Your task to perform on an android device: change your default location settings in chrome Image 0: 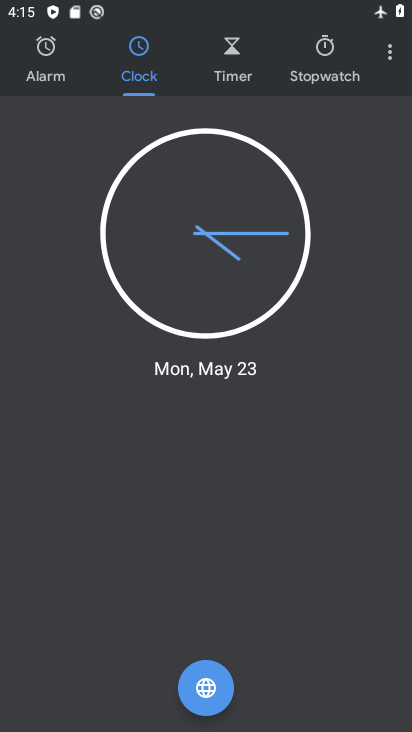
Step 0: press home button
Your task to perform on an android device: change your default location settings in chrome Image 1: 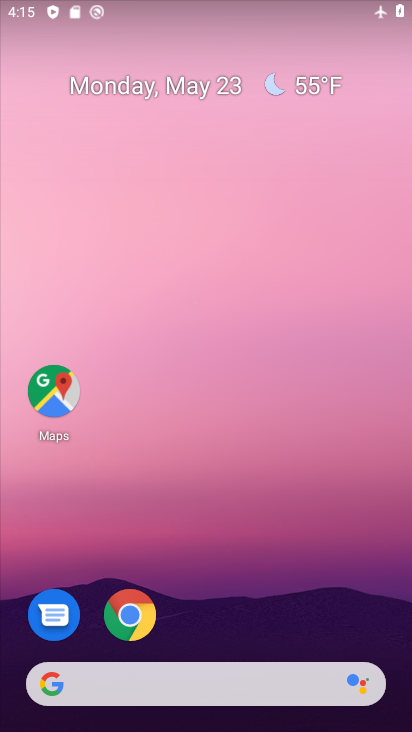
Step 1: drag from (334, 605) to (334, 139)
Your task to perform on an android device: change your default location settings in chrome Image 2: 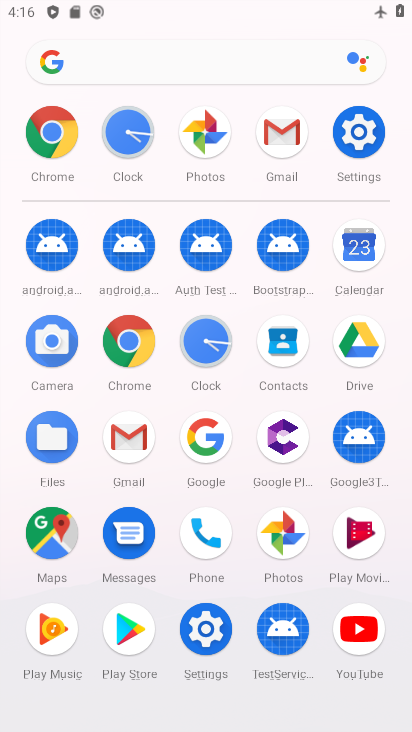
Step 2: click (133, 371)
Your task to perform on an android device: change your default location settings in chrome Image 3: 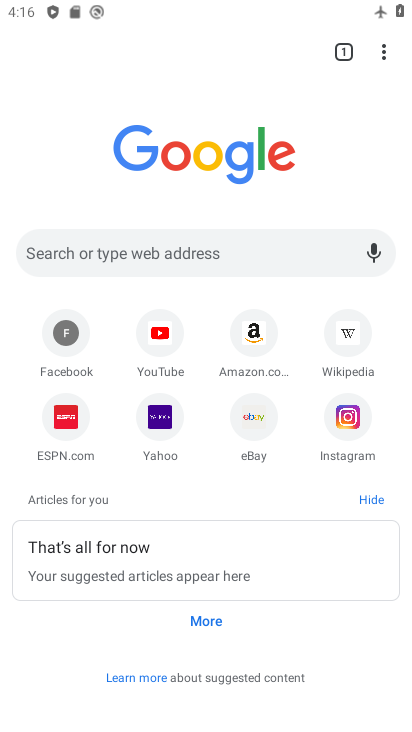
Step 3: click (385, 56)
Your task to perform on an android device: change your default location settings in chrome Image 4: 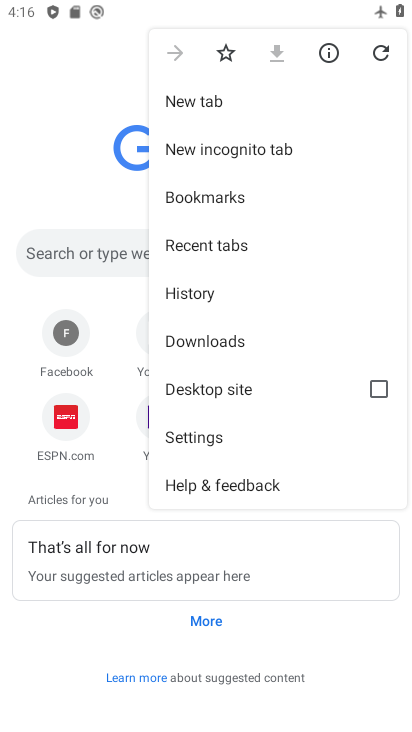
Step 4: click (183, 447)
Your task to perform on an android device: change your default location settings in chrome Image 5: 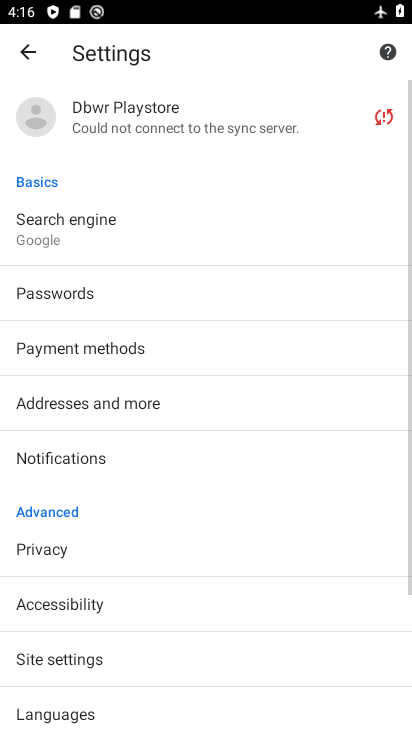
Step 5: drag from (257, 556) to (276, 470)
Your task to perform on an android device: change your default location settings in chrome Image 6: 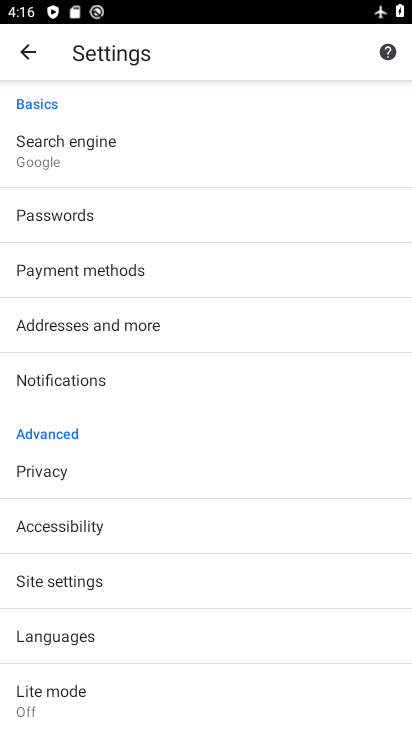
Step 6: drag from (277, 592) to (286, 507)
Your task to perform on an android device: change your default location settings in chrome Image 7: 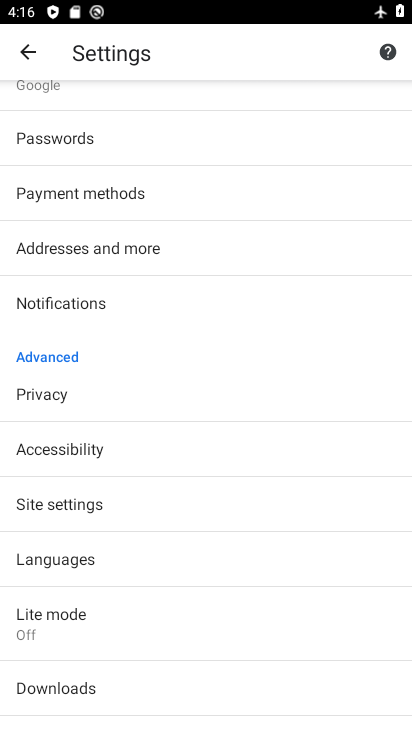
Step 7: drag from (281, 620) to (285, 528)
Your task to perform on an android device: change your default location settings in chrome Image 8: 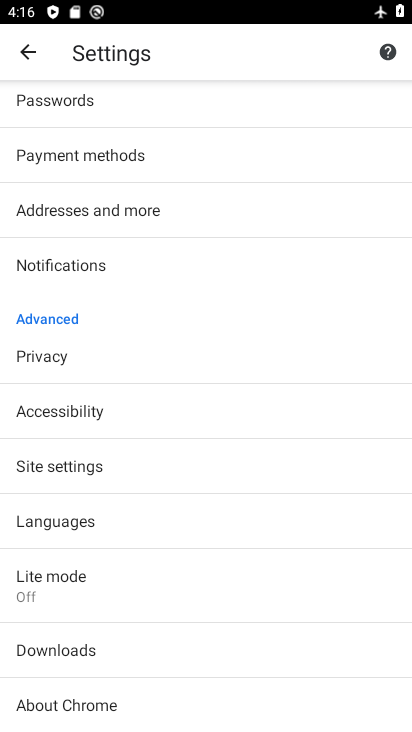
Step 8: drag from (264, 633) to (260, 493)
Your task to perform on an android device: change your default location settings in chrome Image 9: 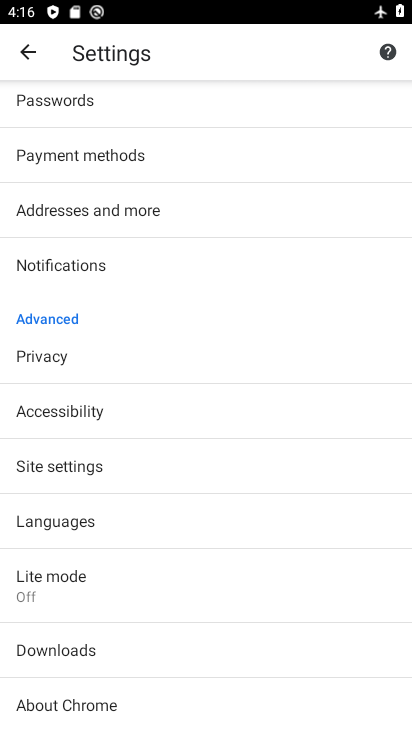
Step 9: drag from (290, 394) to (302, 466)
Your task to perform on an android device: change your default location settings in chrome Image 10: 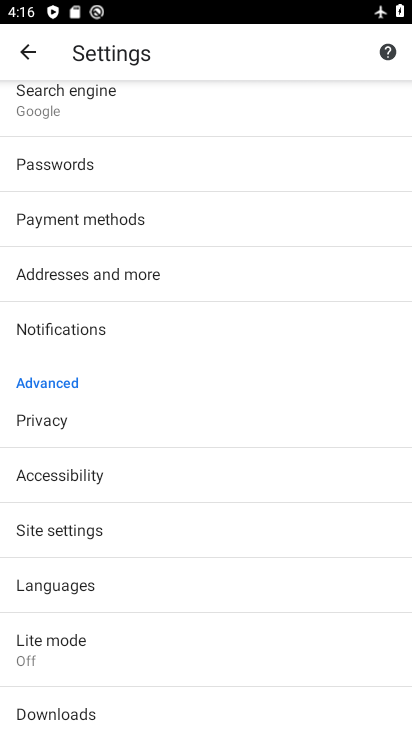
Step 10: drag from (317, 325) to (305, 494)
Your task to perform on an android device: change your default location settings in chrome Image 11: 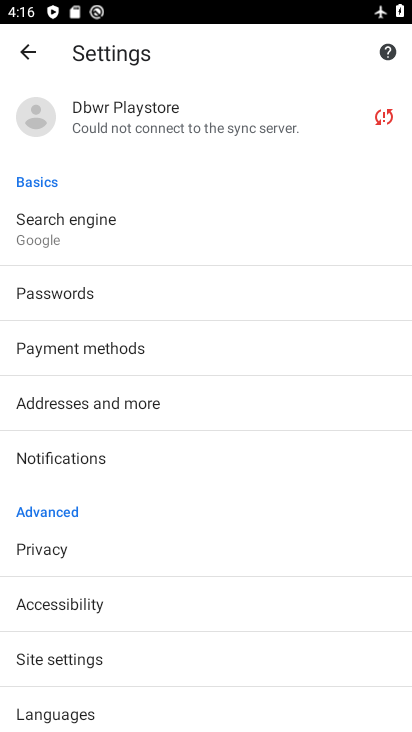
Step 11: drag from (320, 557) to (320, 465)
Your task to perform on an android device: change your default location settings in chrome Image 12: 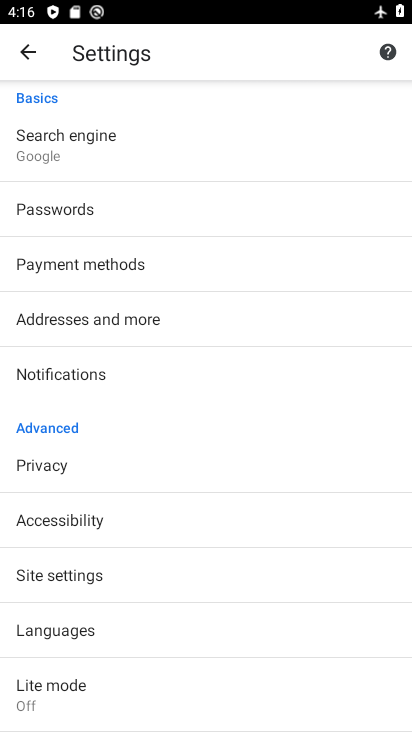
Step 12: click (271, 576)
Your task to perform on an android device: change your default location settings in chrome Image 13: 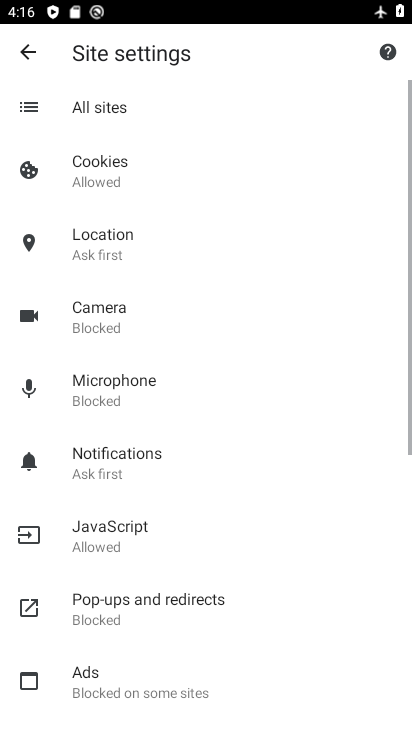
Step 13: drag from (280, 606) to (288, 519)
Your task to perform on an android device: change your default location settings in chrome Image 14: 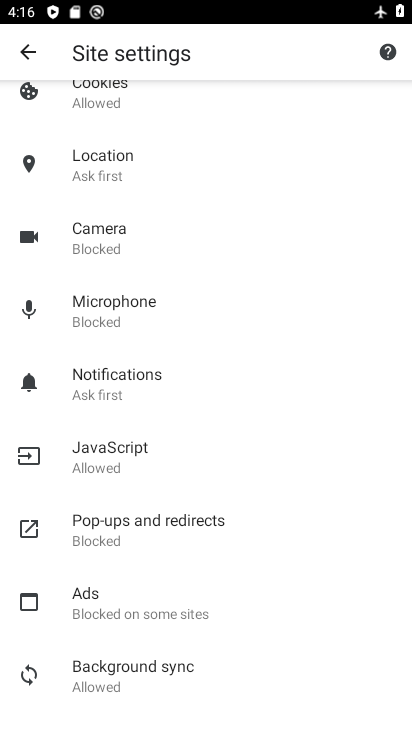
Step 14: drag from (280, 623) to (279, 556)
Your task to perform on an android device: change your default location settings in chrome Image 15: 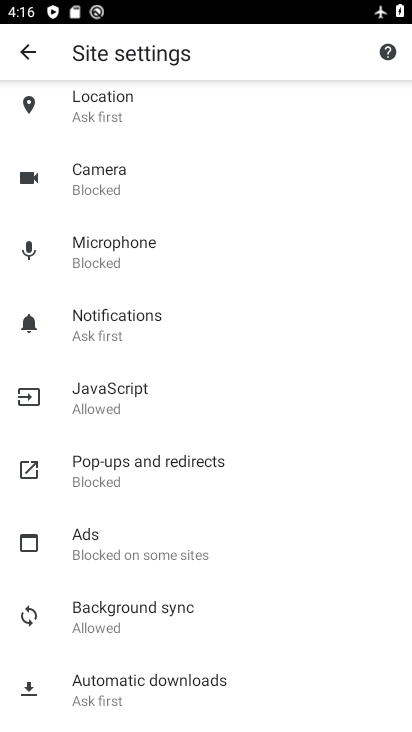
Step 15: drag from (275, 642) to (273, 555)
Your task to perform on an android device: change your default location settings in chrome Image 16: 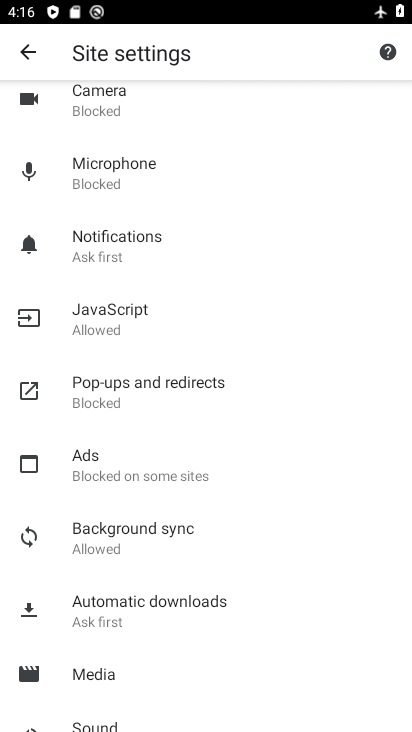
Step 16: drag from (286, 621) to (287, 537)
Your task to perform on an android device: change your default location settings in chrome Image 17: 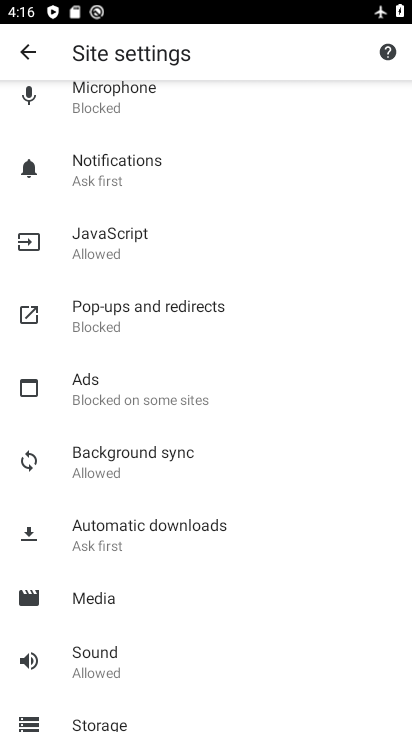
Step 17: drag from (294, 631) to (291, 508)
Your task to perform on an android device: change your default location settings in chrome Image 18: 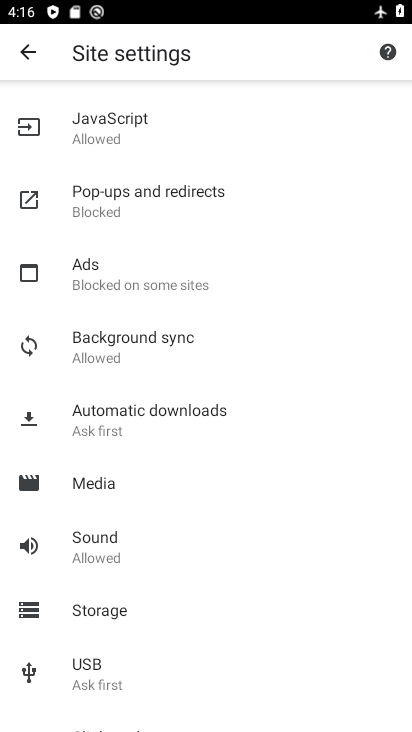
Step 18: drag from (281, 625) to (276, 480)
Your task to perform on an android device: change your default location settings in chrome Image 19: 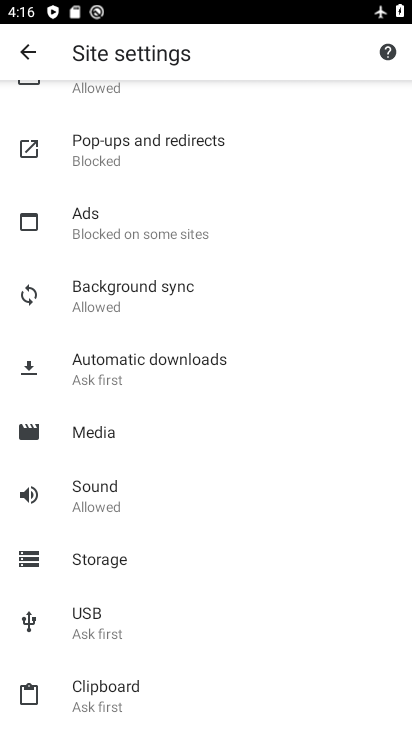
Step 19: drag from (287, 406) to (285, 539)
Your task to perform on an android device: change your default location settings in chrome Image 20: 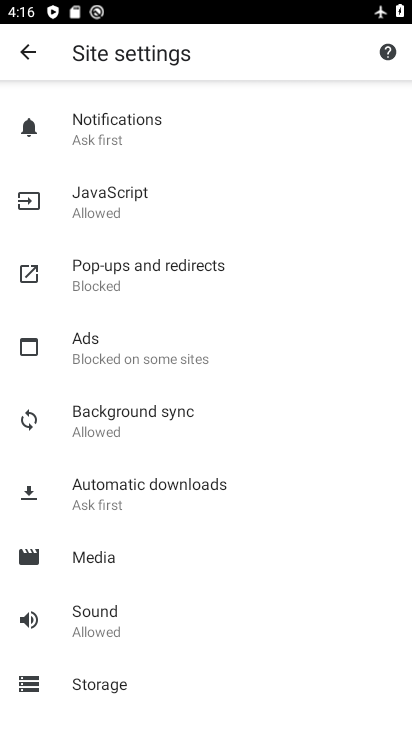
Step 20: drag from (294, 376) to (277, 522)
Your task to perform on an android device: change your default location settings in chrome Image 21: 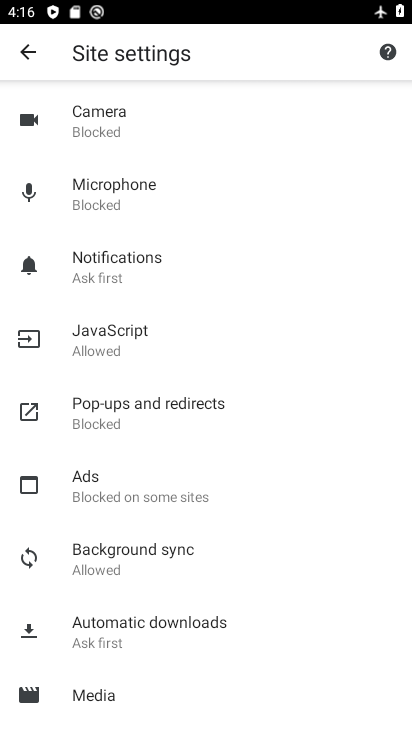
Step 21: drag from (293, 366) to (276, 474)
Your task to perform on an android device: change your default location settings in chrome Image 22: 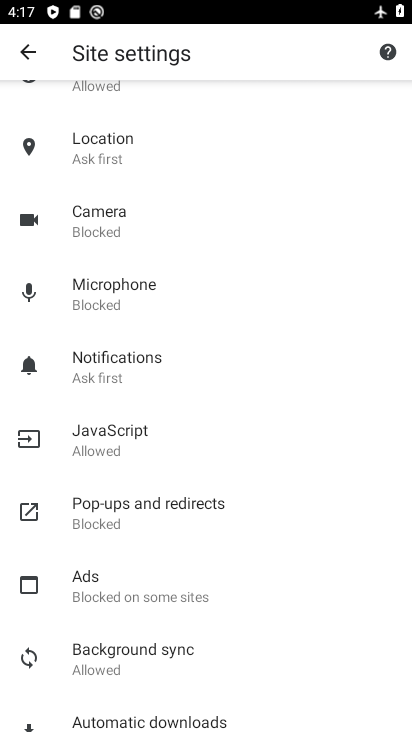
Step 22: drag from (272, 355) to (256, 475)
Your task to perform on an android device: change your default location settings in chrome Image 23: 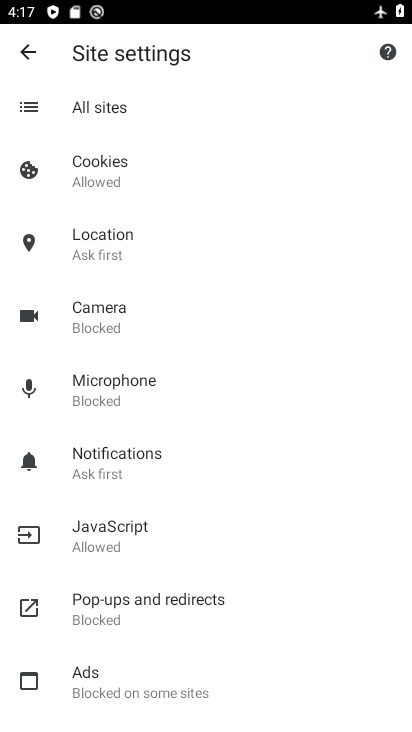
Step 23: drag from (223, 239) to (221, 385)
Your task to perform on an android device: change your default location settings in chrome Image 24: 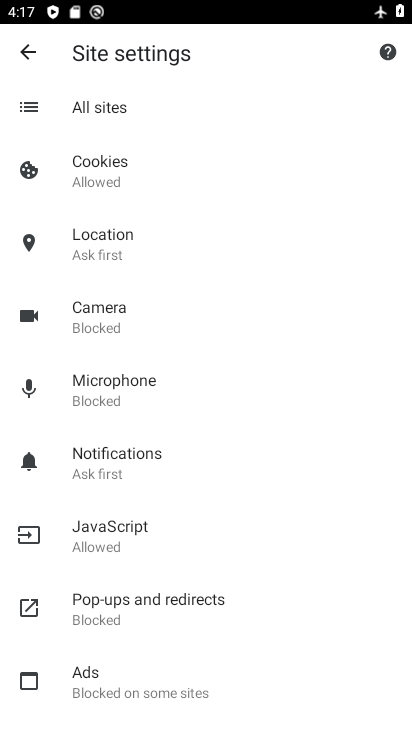
Step 24: click (161, 249)
Your task to perform on an android device: change your default location settings in chrome Image 25: 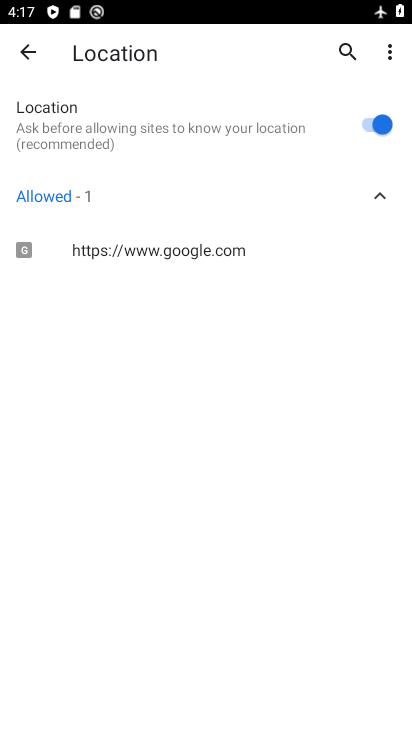
Step 25: click (361, 120)
Your task to perform on an android device: change your default location settings in chrome Image 26: 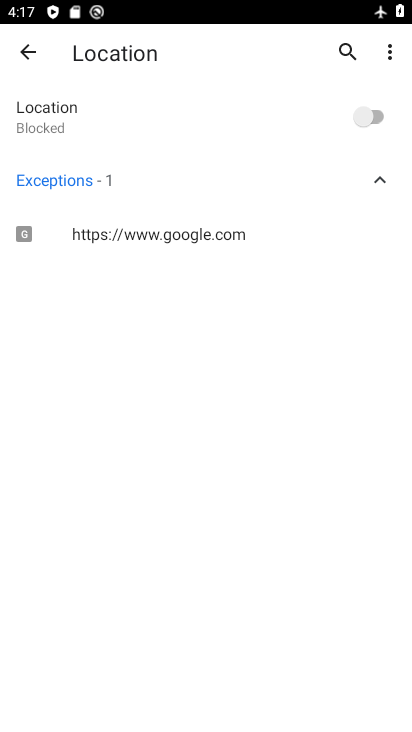
Step 26: task complete